Your task to perform on an android device: What's the weather going to be this weekend? Image 0: 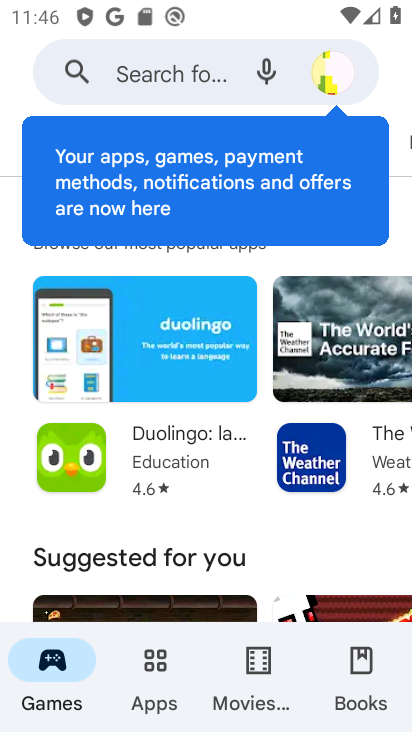
Step 0: press home button
Your task to perform on an android device: What's the weather going to be this weekend? Image 1: 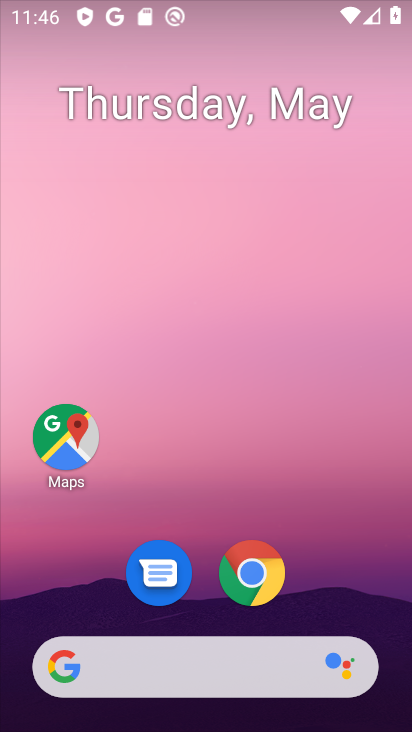
Step 1: drag from (391, 619) to (275, 88)
Your task to perform on an android device: What's the weather going to be this weekend? Image 2: 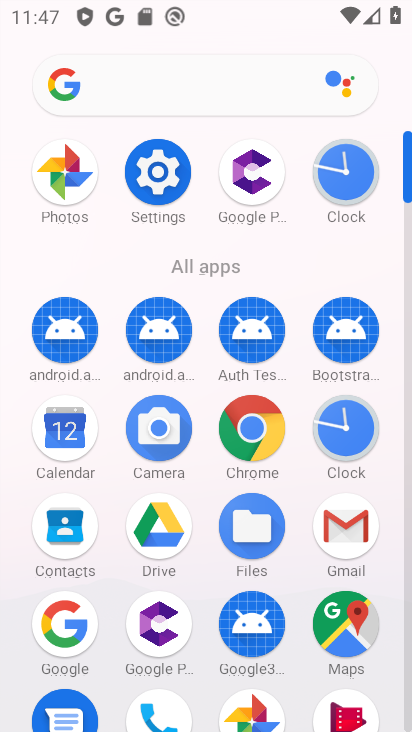
Step 2: click (57, 616)
Your task to perform on an android device: What's the weather going to be this weekend? Image 3: 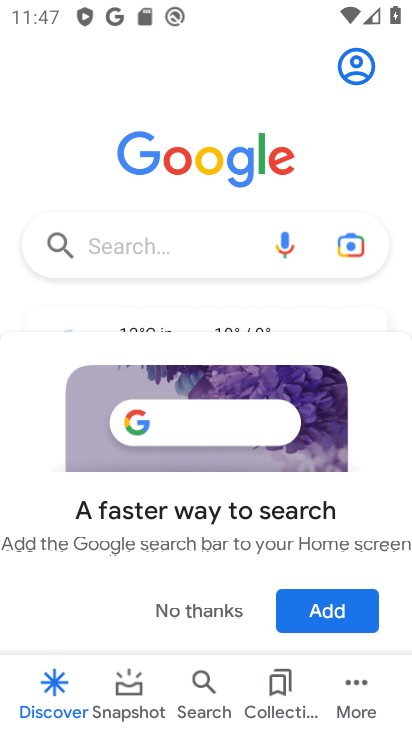
Step 3: click (164, 228)
Your task to perform on an android device: What's the weather going to be this weekend? Image 4: 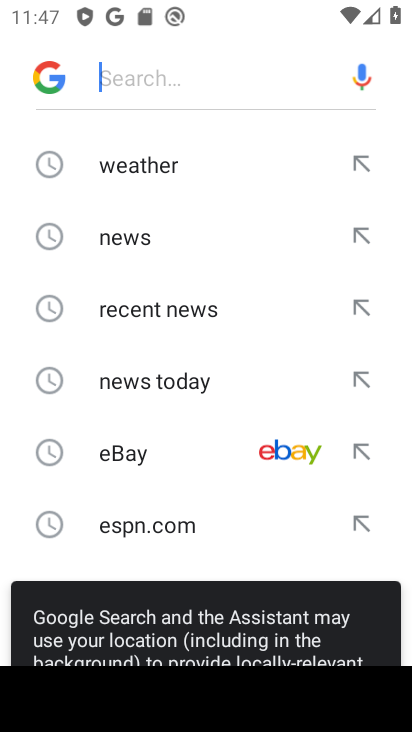
Step 4: drag from (193, 508) to (186, 207)
Your task to perform on an android device: What's the weather going to be this weekend? Image 5: 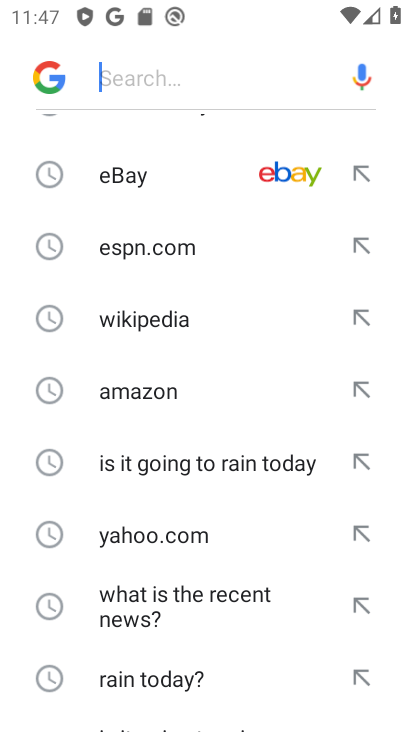
Step 5: drag from (164, 661) to (204, 264)
Your task to perform on an android device: What's the weather going to be this weekend? Image 6: 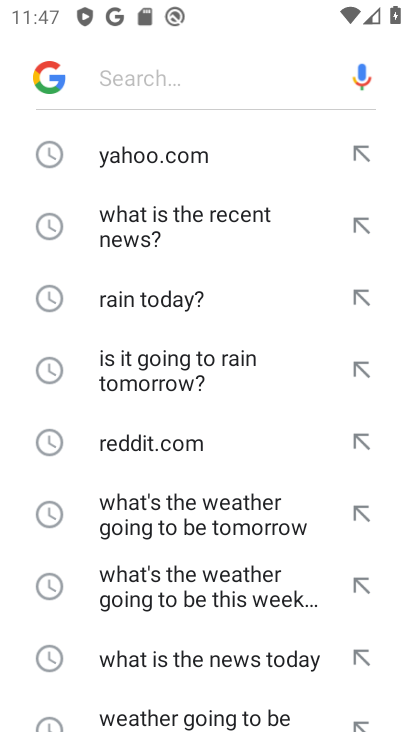
Step 6: click (230, 589)
Your task to perform on an android device: What's the weather going to be this weekend? Image 7: 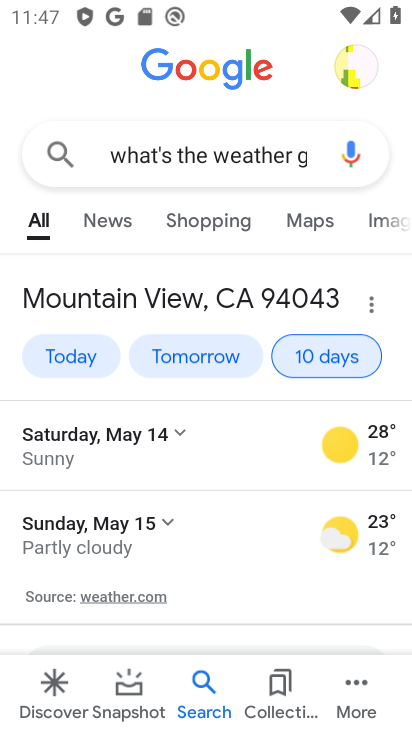
Step 7: task complete